Your task to perform on an android device: turn smart compose on in the gmail app Image 0: 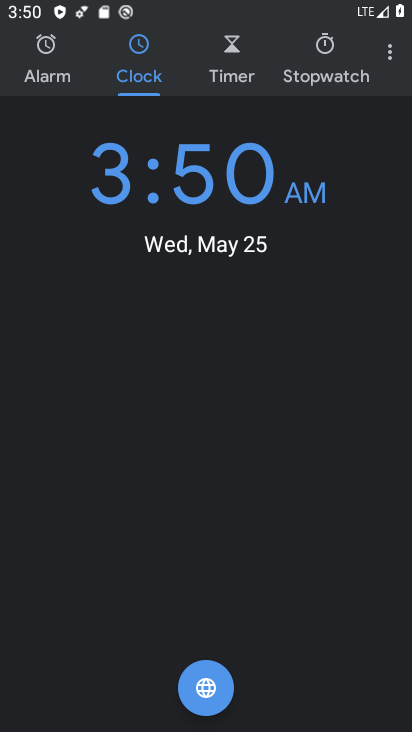
Step 0: press home button
Your task to perform on an android device: turn smart compose on in the gmail app Image 1: 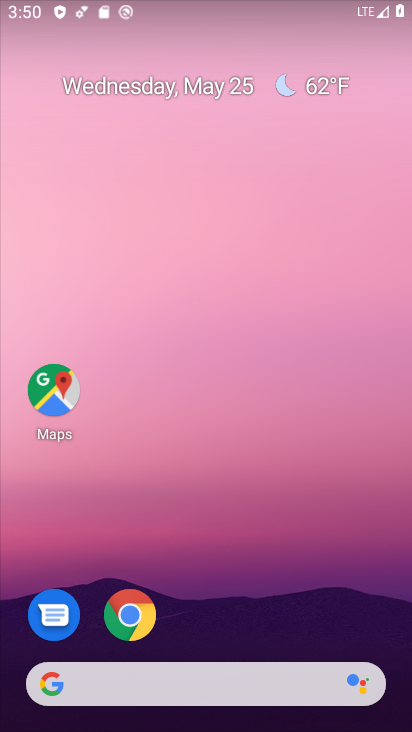
Step 1: drag from (295, 358) to (236, 8)
Your task to perform on an android device: turn smart compose on in the gmail app Image 2: 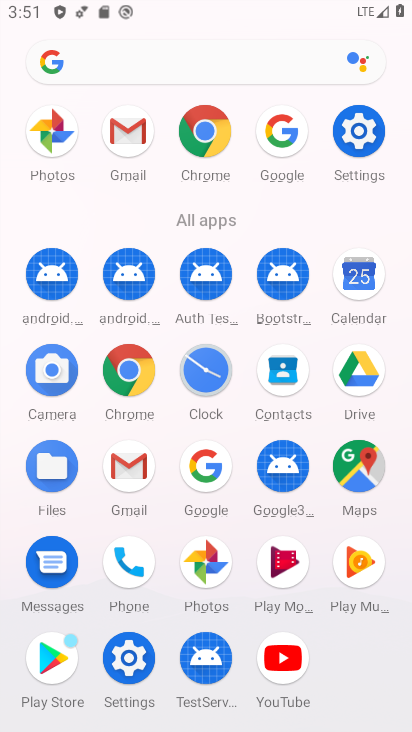
Step 2: click (122, 475)
Your task to perform on an android device: turn smart compose on in the gmail app Image 3: 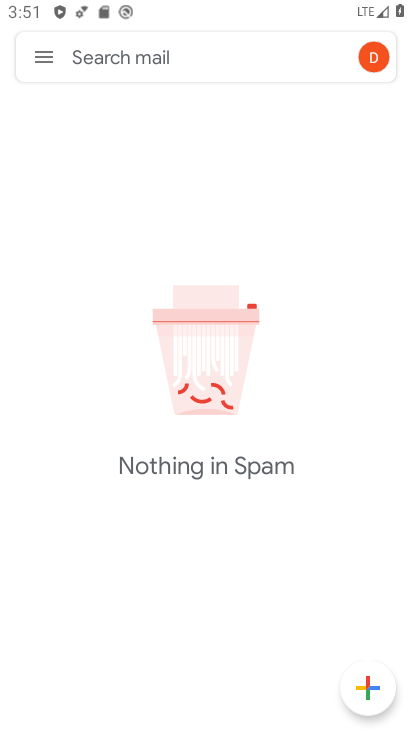
Step 3: click (45, 53)
Your task to perform on an android device: turn smart compose on in the gmail app Image 4: 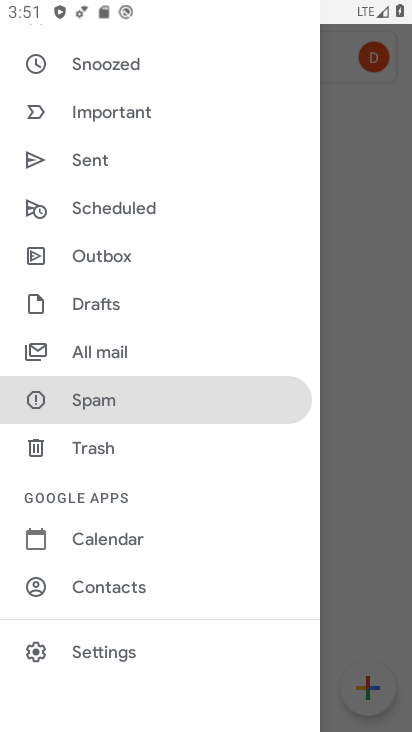
Step 4: click (152, 647)
Your task to perform on an android device: turn smart compose on in the gmail app Image 5: 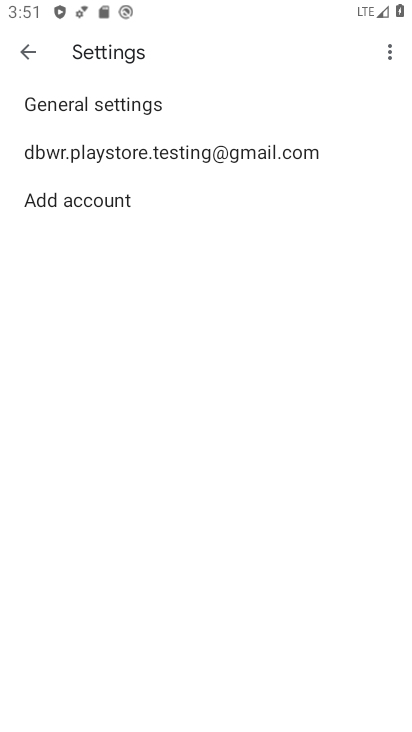
Step 5: click (210, 165)
Your task to perform on an android device: turn smart compose on in the gmail app Image 6: 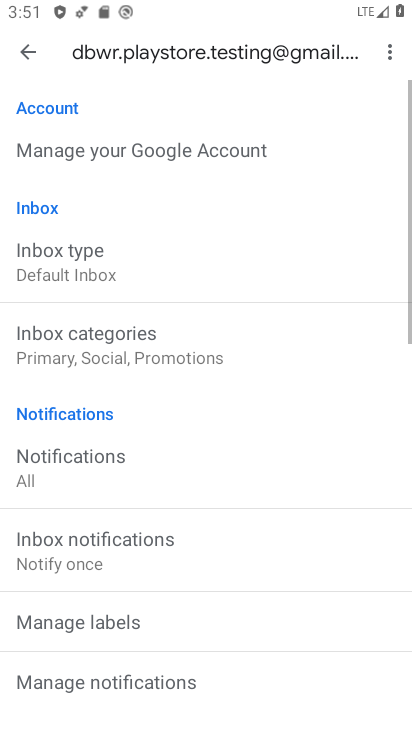
Step 6: task complete